Your task to perform on an android device: Open network settings Image 0: 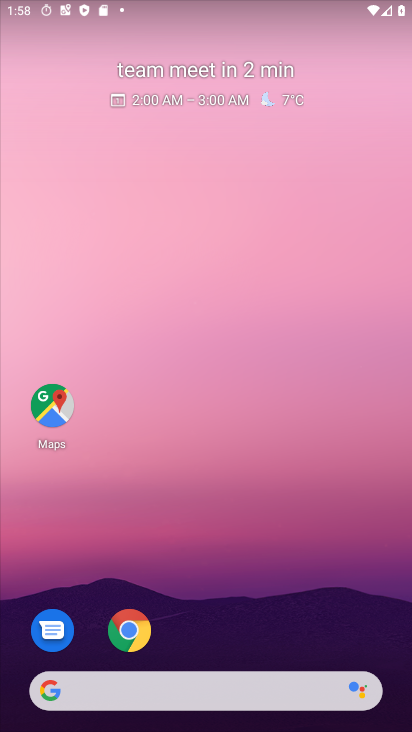
Step 0: drag from (228, 675) to (202, 164)
Your task to perform on an android device: Open network settings Image 1: 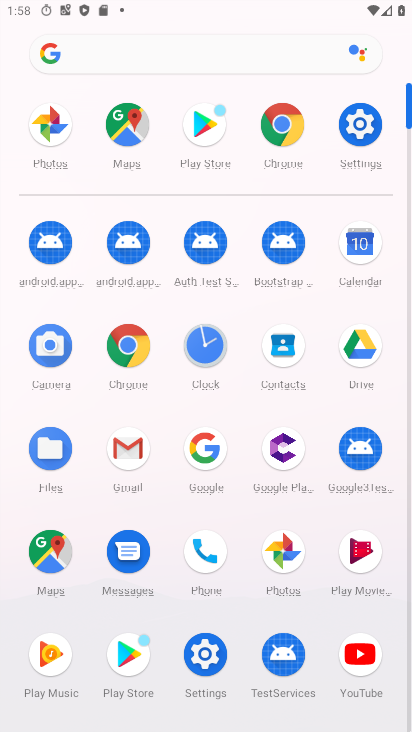
Step 1: click (336, 138)
Your task to perform on an android device: Open network settings Image 2: 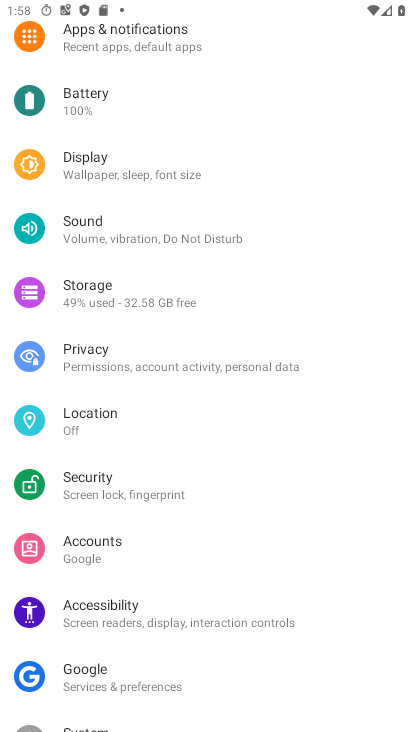
Step 2: drag from (161, 86) to (219, 516)
Your task to perform on an android device: Open network settings Image 3: 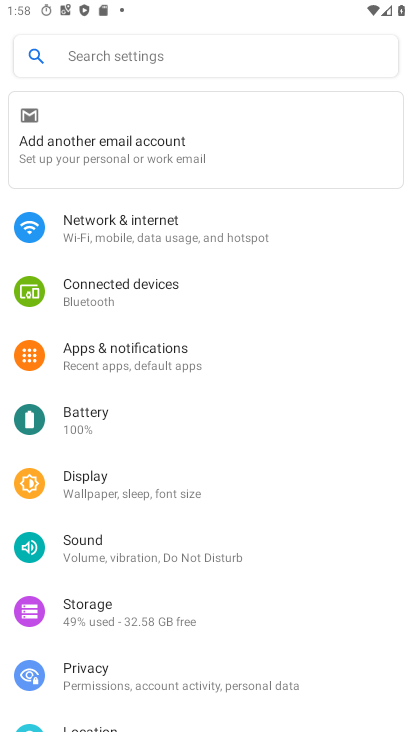
Step 3: click (175, 237)
Your task to perform on an android device: Open network settings Image 4: 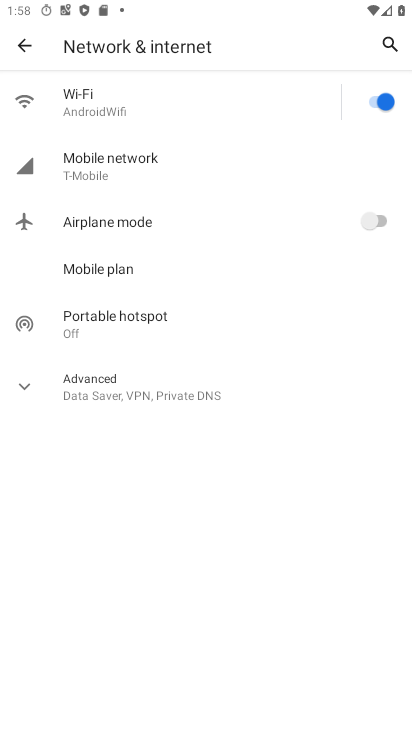
Step 4: task complete